Your task to perform on an android device: When is my next appointment? Image 0: 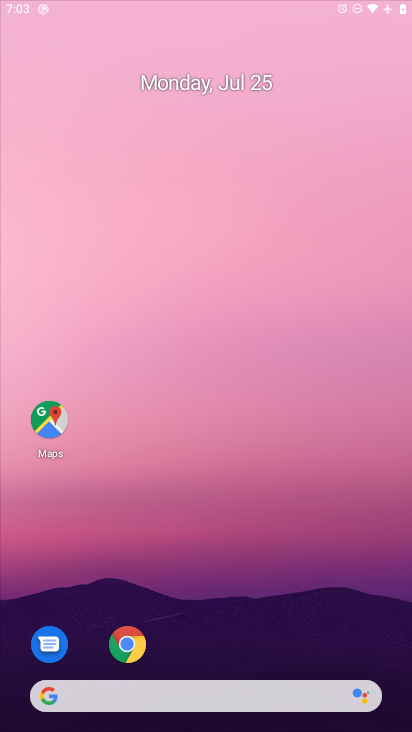
Step 0: press home button
Your task to perform on an android device: When is my next appointment? Image 1: 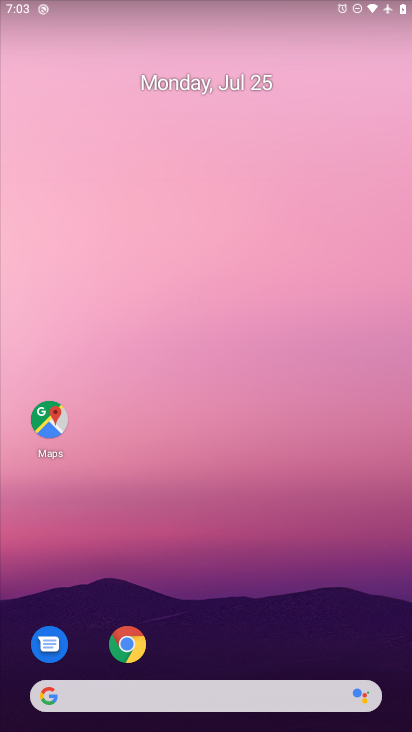
Step 1: drag from (214, 652) to (309, 77)
Your task to perform on an android device: When is my next appointment? Image 2: 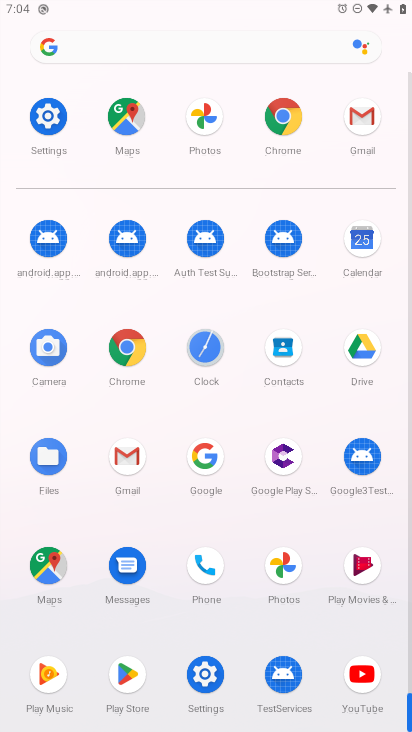
Step 2: click (367, 240)
Your task to perform on an android device: When is my next appointment? Image 3: 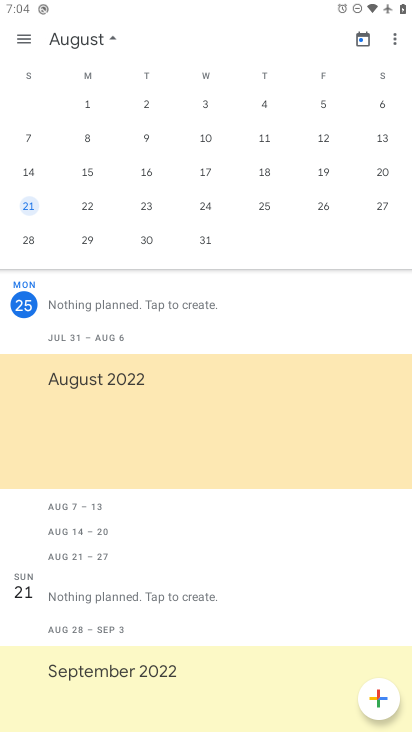
Step 3: click (23, 33)
Your task to perform on an android device: When is my next appointment? Image 4: 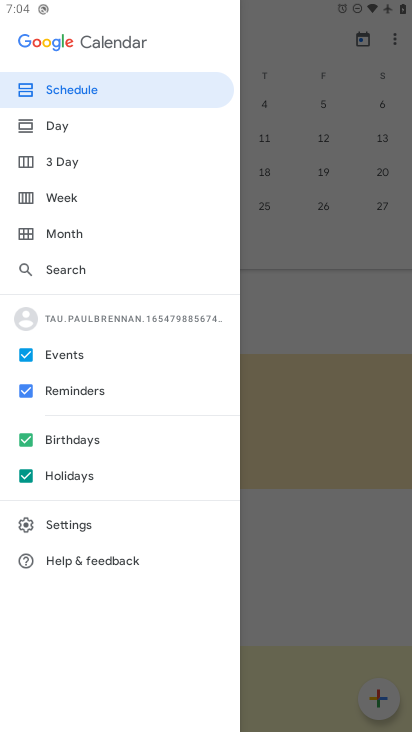
Step 4: click (62, 94)
Your task to perform on an android device: When is my next appointment? Image 5: 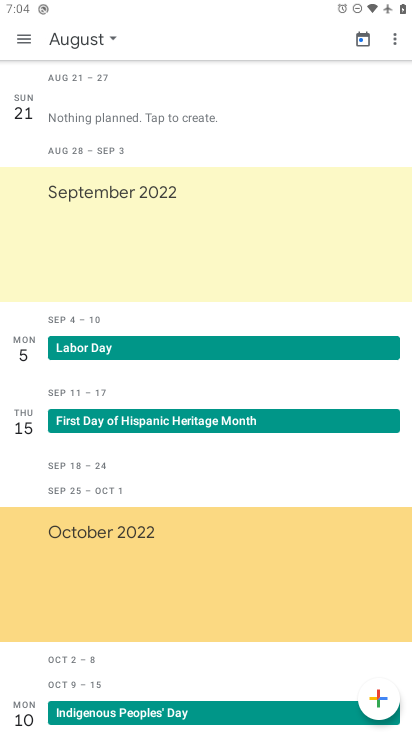
Step 5: task complete